Your task to perform on an android device: check storage Image 0: 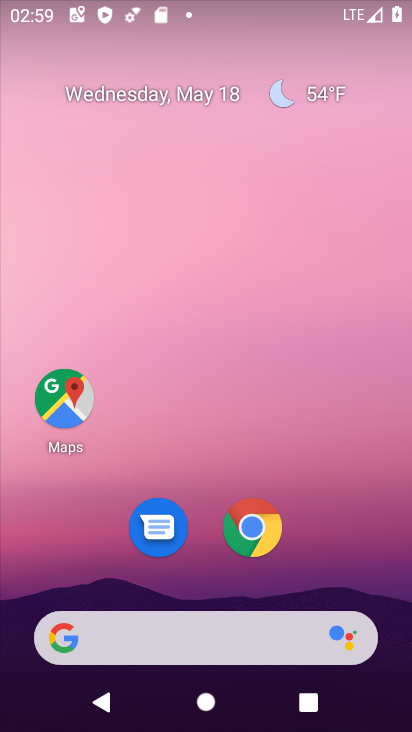
Step 0: drag from (207, 590) to (189, 49)
Your task to perform on an android device: check storage Image 1: 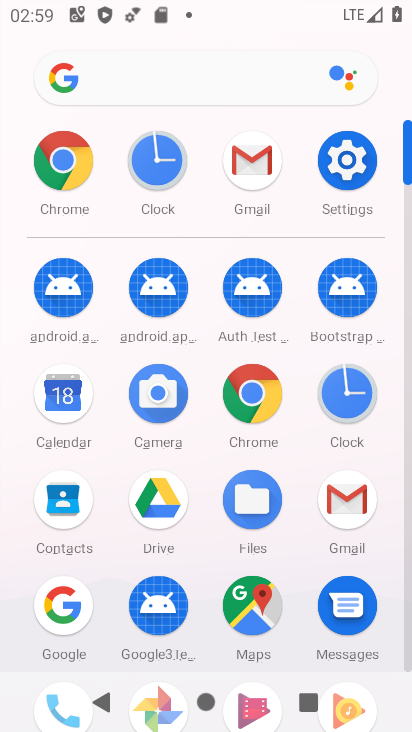
Step 1: click (353, 184)
Your task to perform on an android device: check storage Image 2: 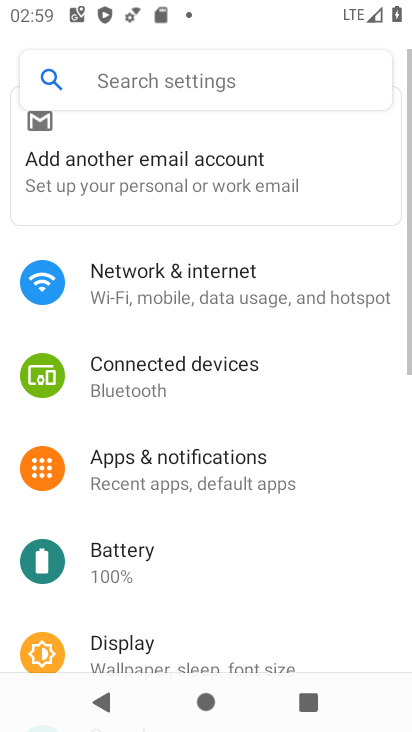
Step 2: drag from (257, 535) to (240, 34)
Your task to perform on an android device: check storage Image 3: 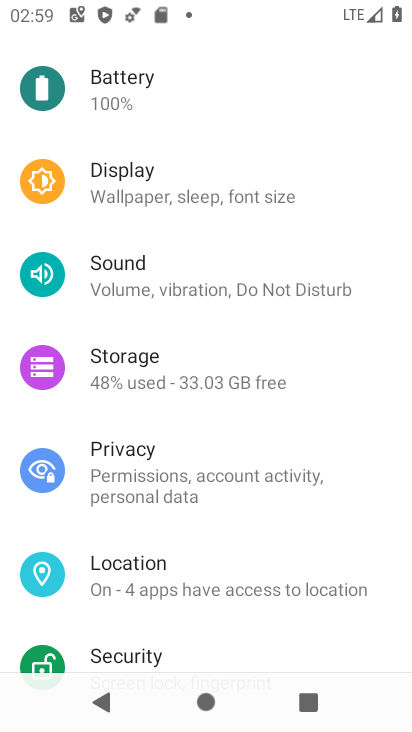
Step 3: drag from (237, 573) to (224, 471)
Your task to perform on an android device: check storage Image 4: 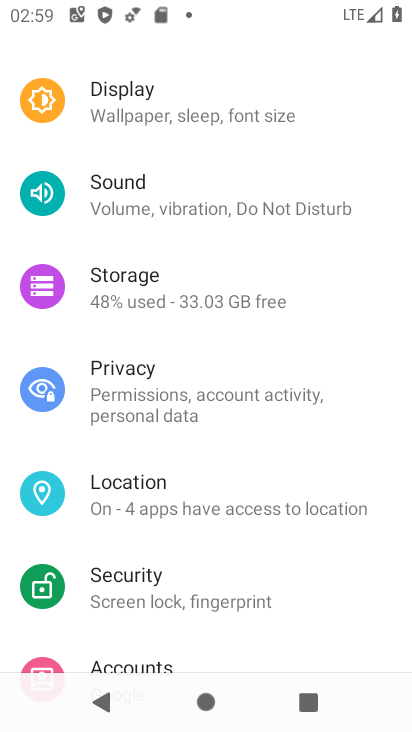
Step 4: click (166, 310)
Your task to perform on an android device: check storage Image 5: 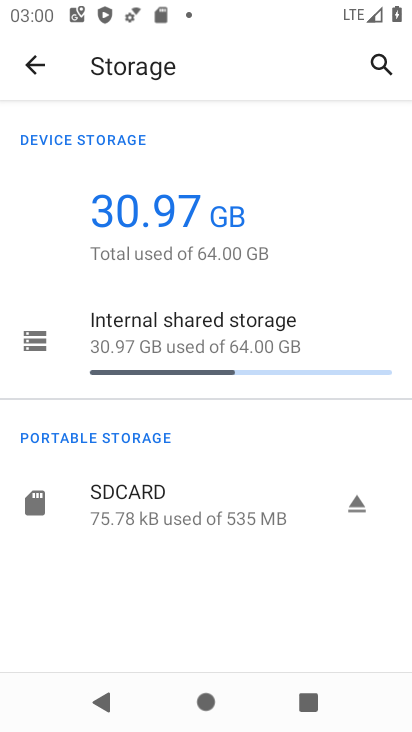
Step 5: click (167, 341)
Your task to perform on an android device: check storage Image 6: 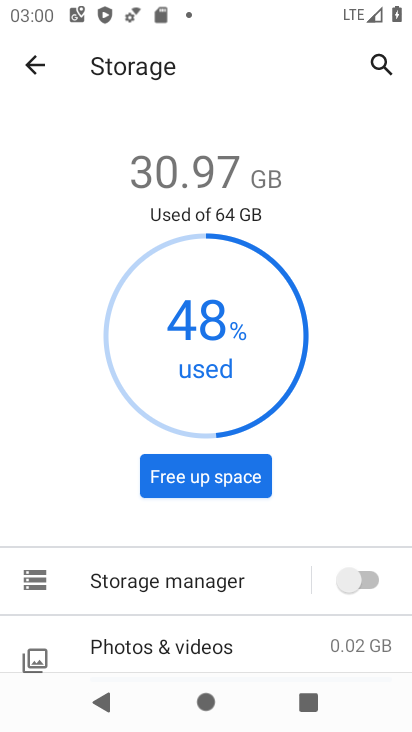
Step 6: task complete